Your task to perform on an android device: Clear the shopping cart on bestbuy. Image 0: 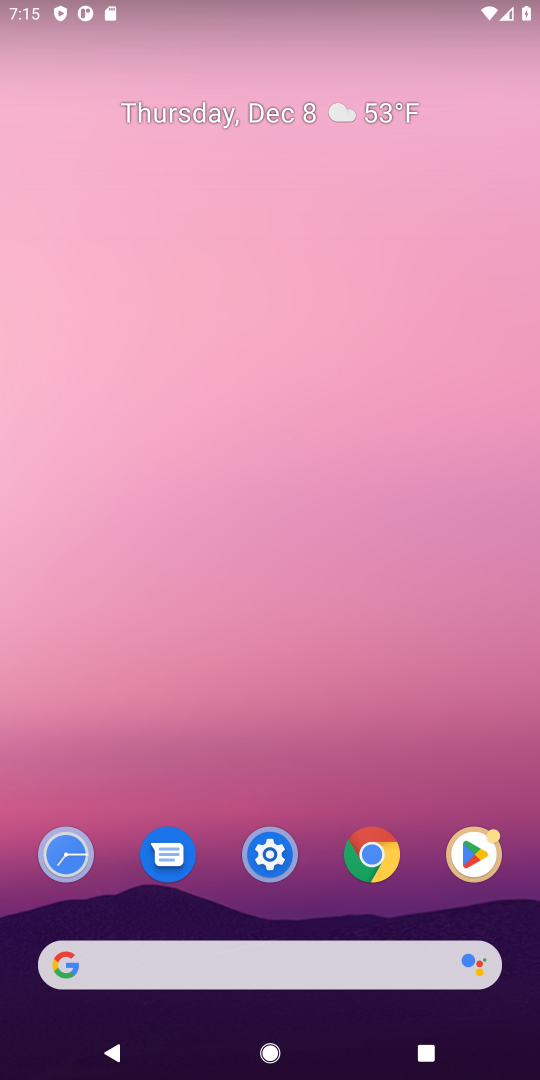
Step 0: press home button
Your task to perform on an android device: Clear the shopping cart on bestbuy. Image 1: 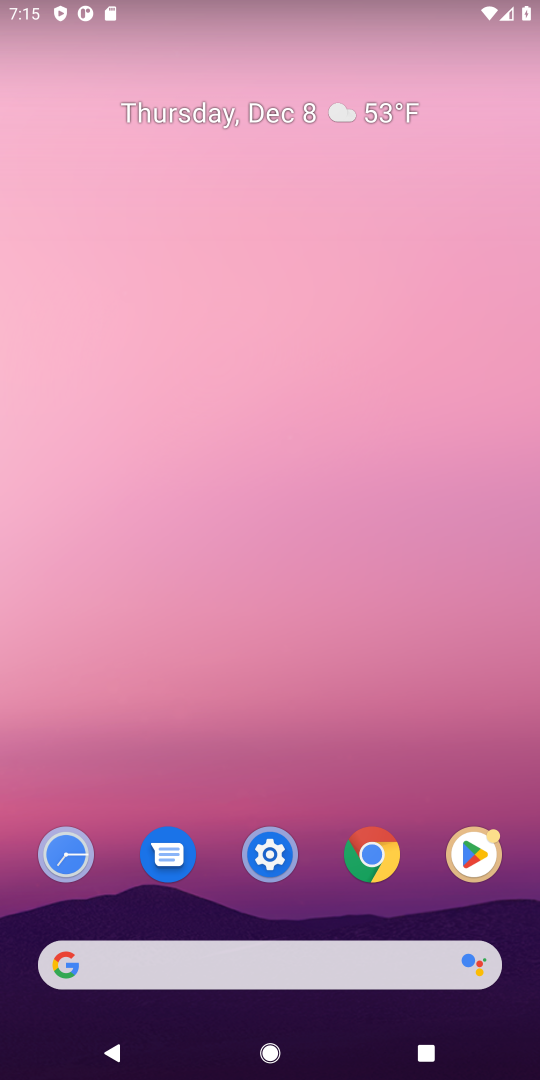
Step 1: click (88, 963)
Your task to perform on an android device: Clear the shopping cart on bestbuy. Image 2: 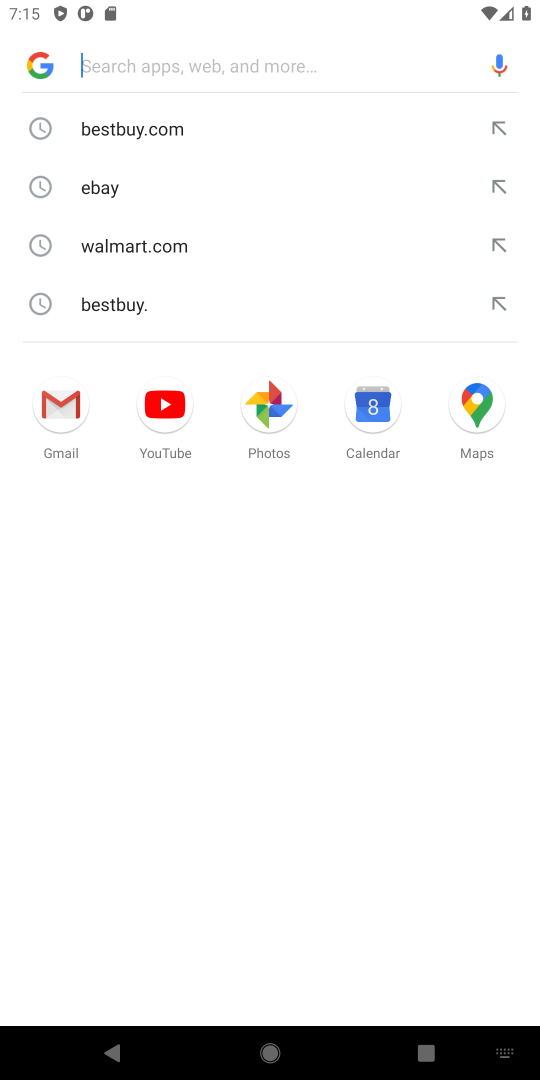
Step 2: type "bestbuy"
Your task to perform on an android device: Clear the shopping cart on bestbuy. Image 3: 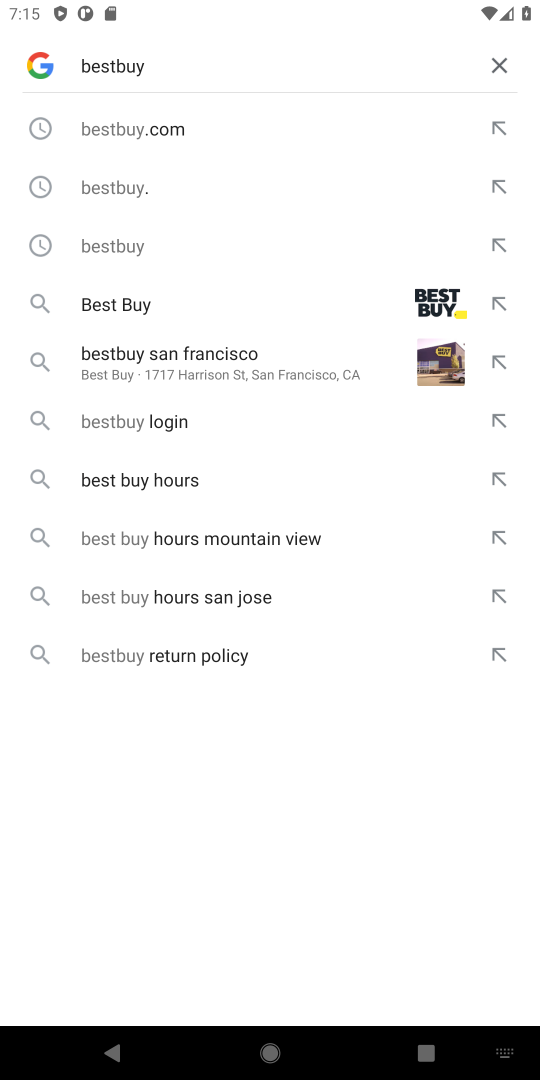
Step 3: press enter
Your task to perform on an android device: Clear the shopping cart on bestbuy. Image 4: 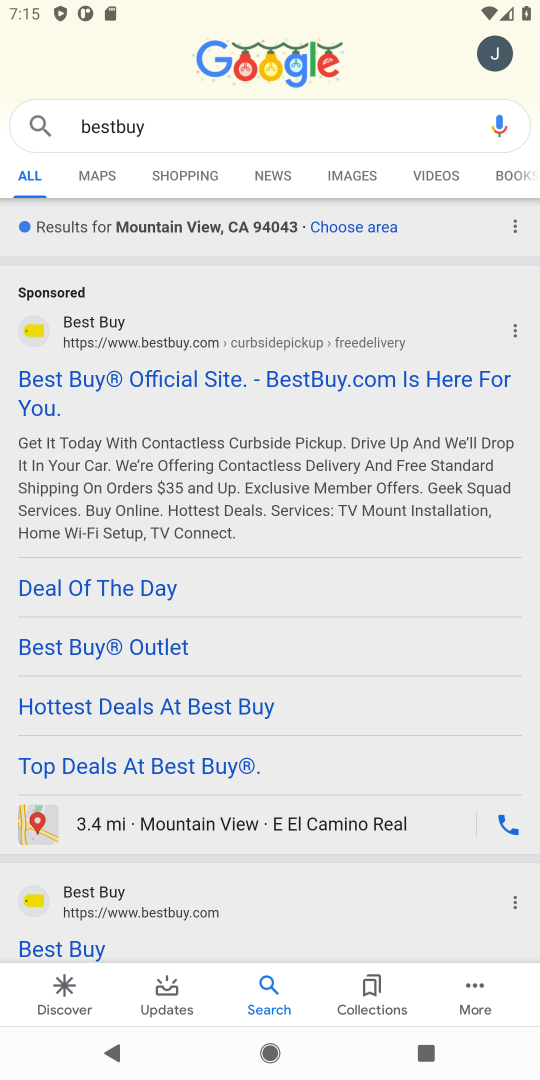
Step 4: click (214, 380)
Your task to perform on an android device: Clear the shopping cart on bestbuy. Image 5: 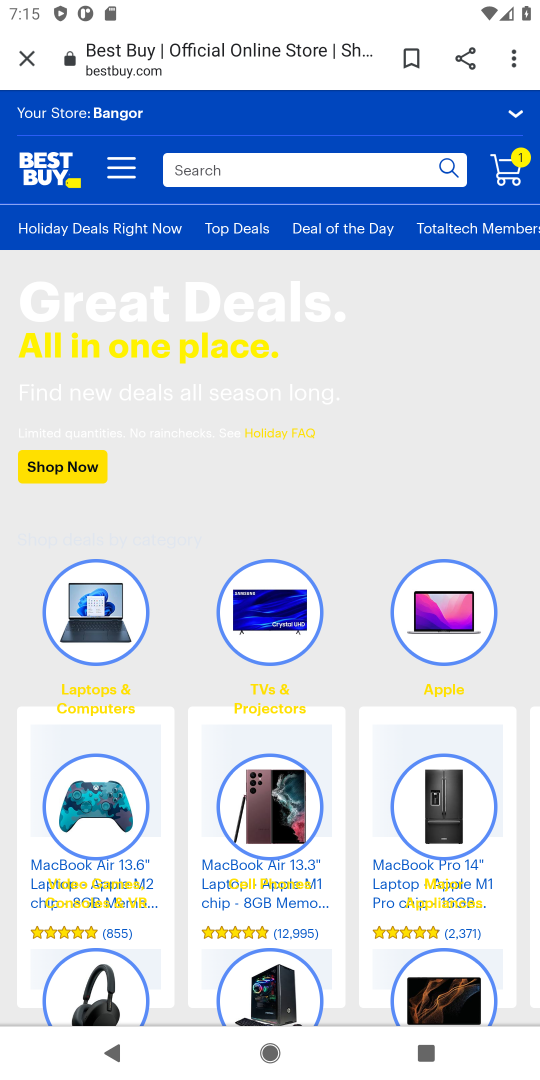
Step 5: click (507, 164)
Your task to perform on an android device: Clear the shopping cart on bestbuy. Image 6: 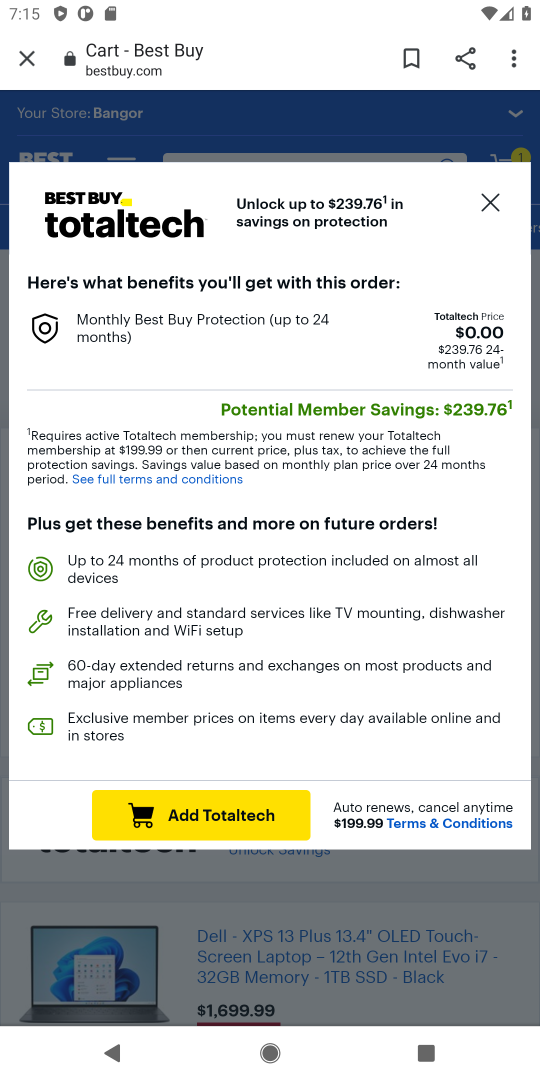
Step 6: click (488, 204)
Your task to perform on an android device: Clear the shopping cart on bestbuy. Image 7: 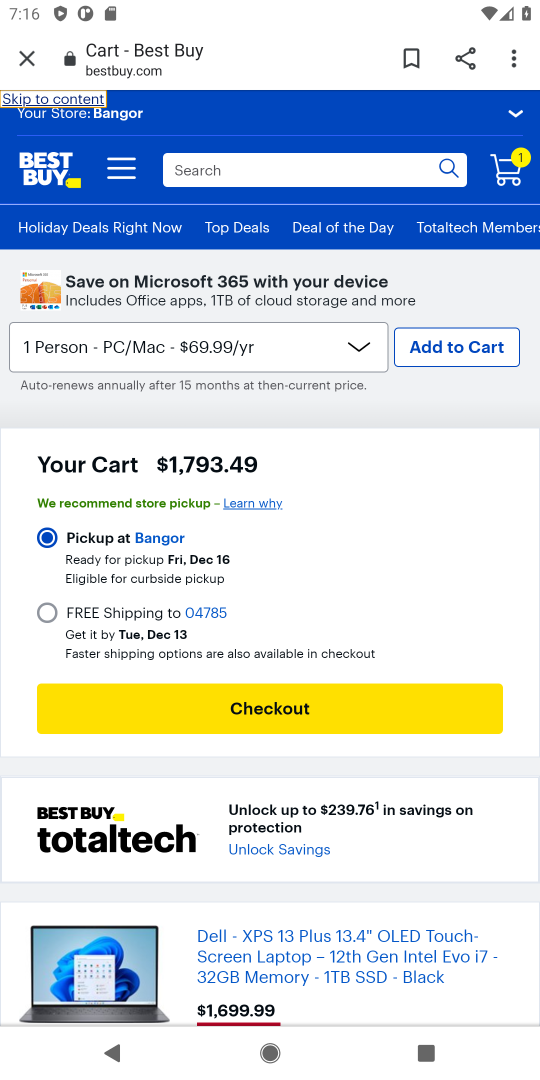
Step 7: drag from (332, 902) to (334, 415)
Your task to perform on an android device: Clear the shopping cart on bestbuy. Image 8: 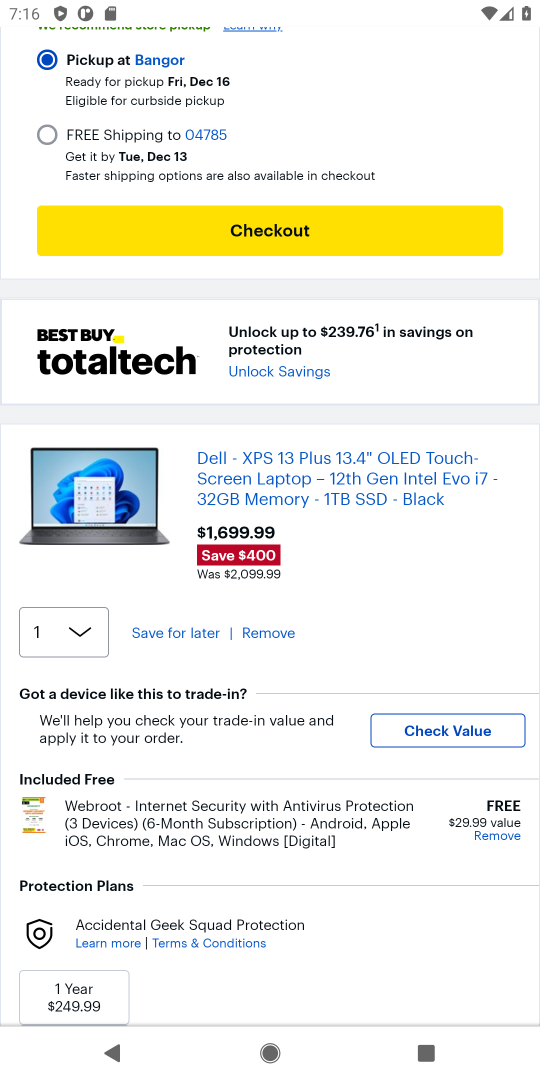
Step 8: click (255, 629)
Your task to perform on an android device: Clear the shopping cart on bestbuy. Image 9: 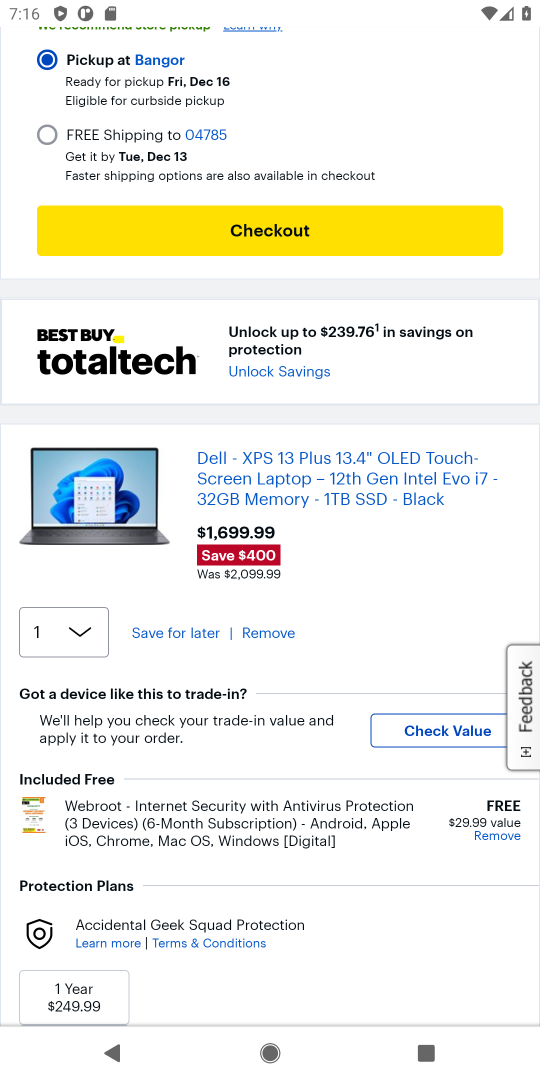
Step 9: click (262, 629)
Your task to perform on an android device: Clear the shopping cart on bestbuy. Image 10: 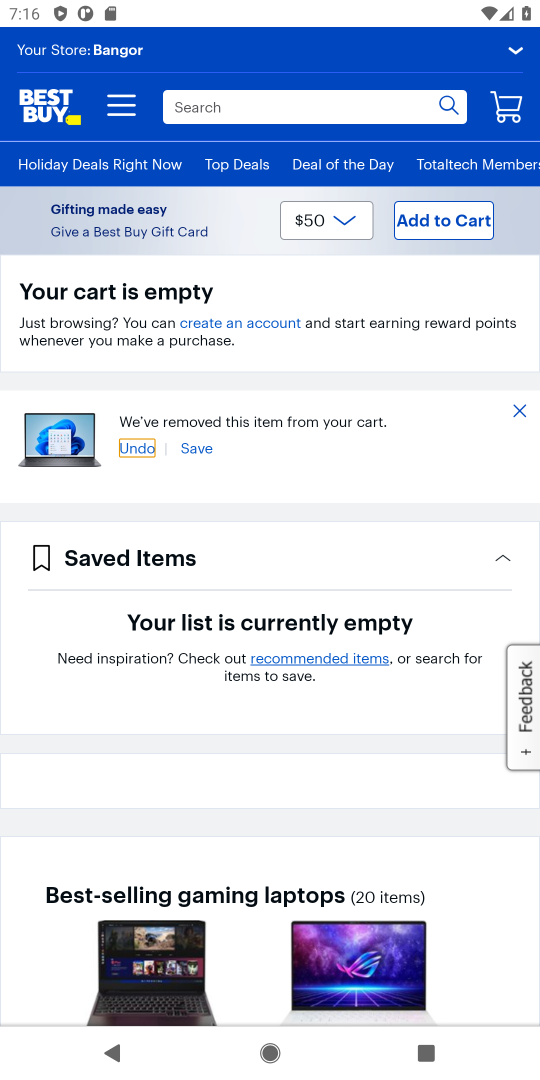
Step 10: task complete